Your task to perform on an android device: visit the assistant section in the google photos Image 0: 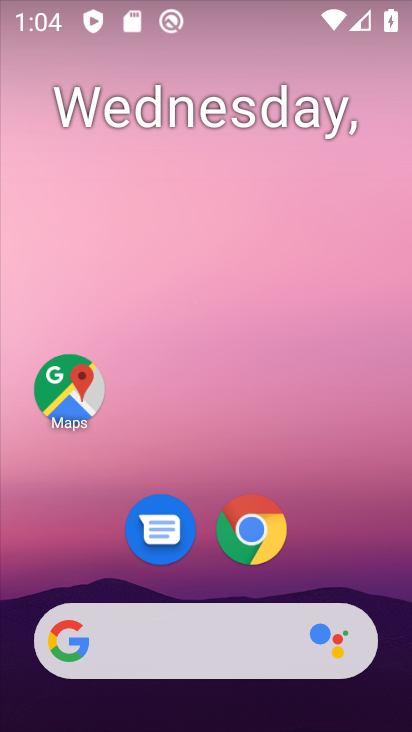
Step 0: drag from (210, 573) to (232, 219)
Your task to perform on an android device: visit the assistant section in the google photos Image 1: 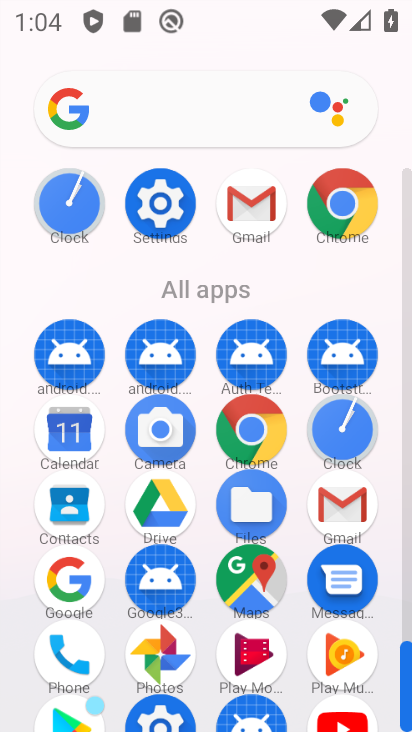
Step 1: click (160, 659)
Your task to perform on an android device: visit the assistant section in the google photos Image 2: 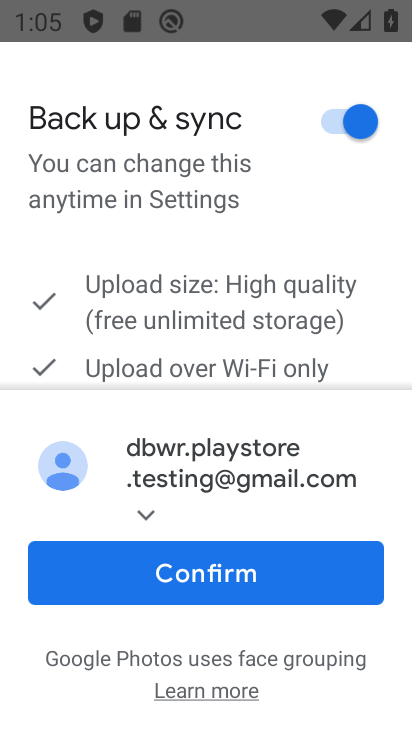
Step 2: click (172, 575)
Your task to perform on an android device: visit the assistant section in the google photos Image 3: 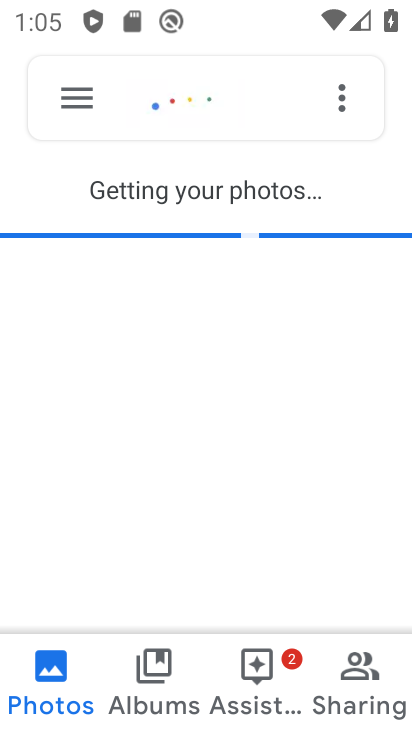
Step 3: click (243, 672)
Your task to perform on an android device: visit the assistant section in the google photos Image 4: 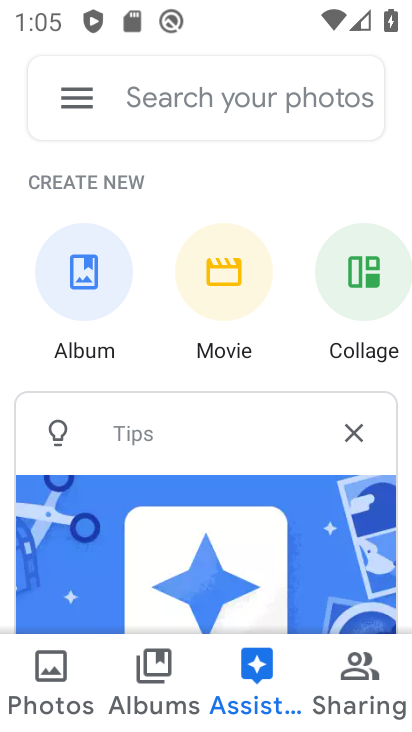
Step 4: task complete